Your task to perform on an android device: Open Google Maps and go to "Timeline" Image 0: 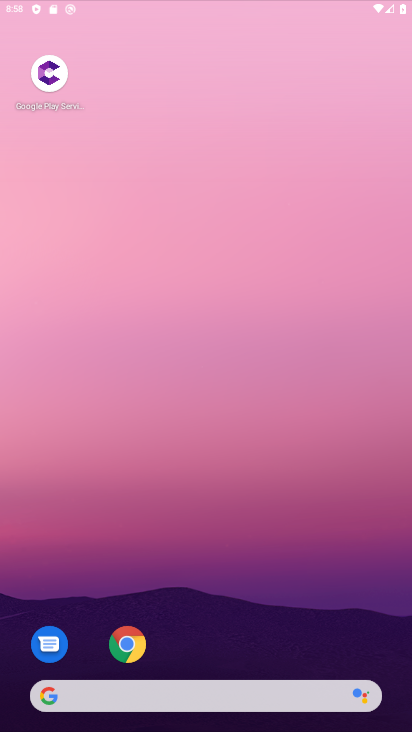
Step 0: click (302, 122)
Your task to perform on an android device: Open Google Maps and go to "Timeline" Image 1: 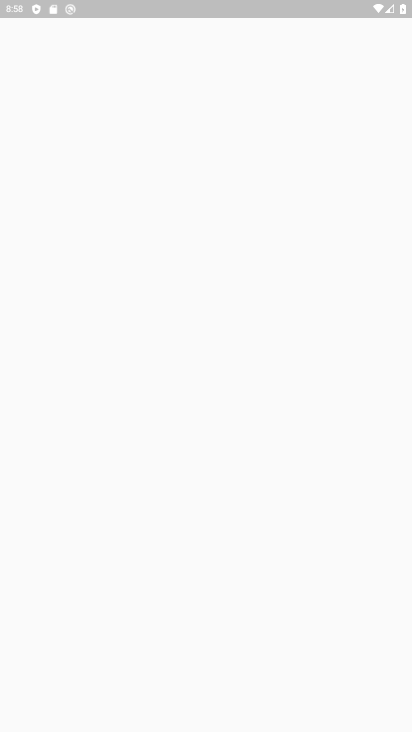
Step 1: press home button
Your task to perform on an android device: Open Google Maps and go to "Timeline" Image 2: 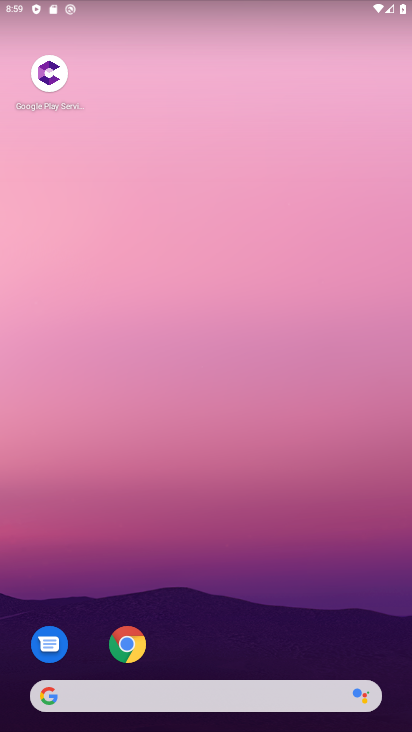
Step 2: drag from (269, 584) to (253, 129)
Your task to perform on an android device: Open Google Maps and go to "Timeline" Image 3: 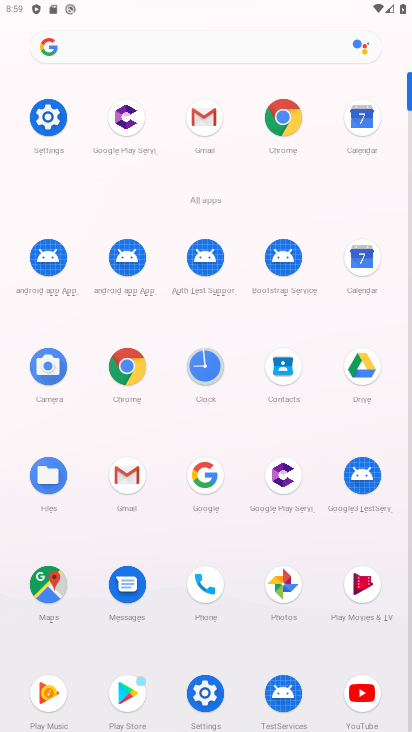
Step 3: click (50, 579)
Your task to perform on an android device: Open Google Maps and go to "Timeline" Image 4: 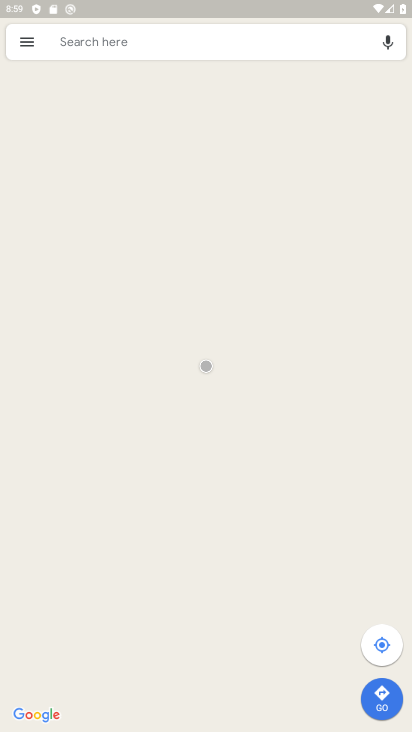
Step 4: click (20, 40)
Your task to perform on an android device: Open Google Maps and go to "Timeline" Image 5: 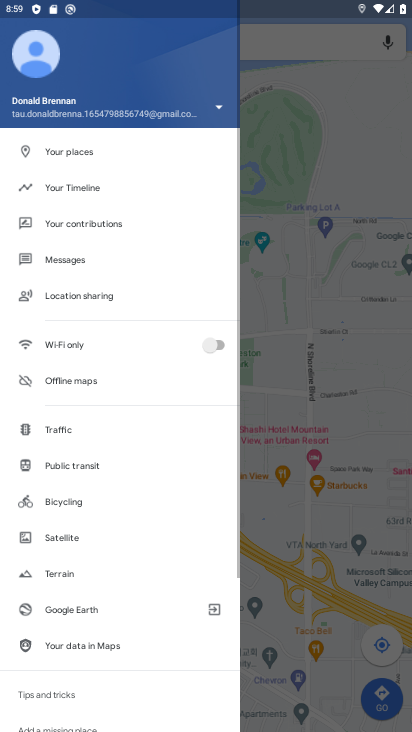
Step 5: click (86, 194)
Your task to perform on an android device: Open Google Maps and go to "Timeline" Image 6: 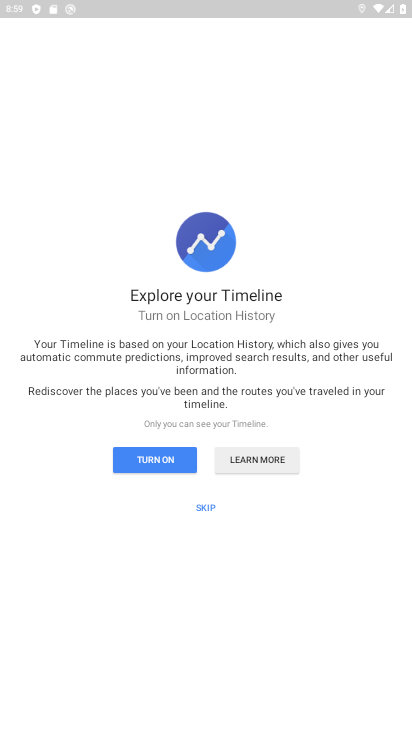
Step 6: click (205, 510)
Your task to perform on an android device: Open Google Maps and go to "Timeline" Image 7: 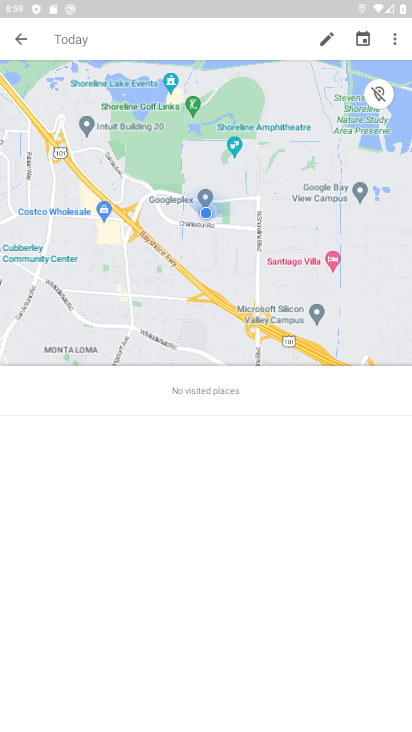
Step 7: task complete